Your task to perform on an android device: set default search engine in the chrome app Image 0: 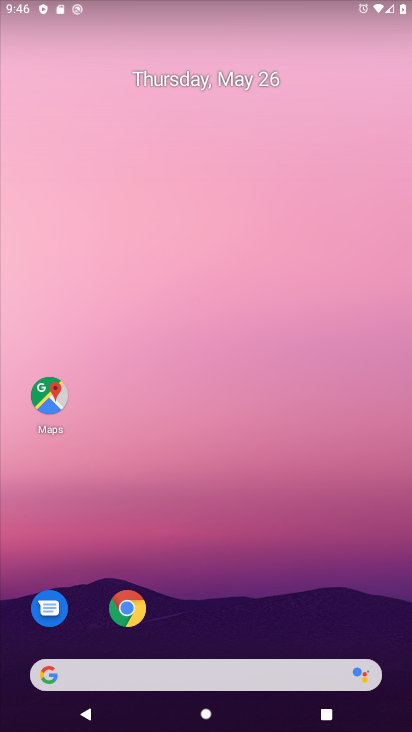
Step 0: drag from (269, 554) to (227, 64)
Your task to perform on an android device: set default search engine in the chrome app Image 1: 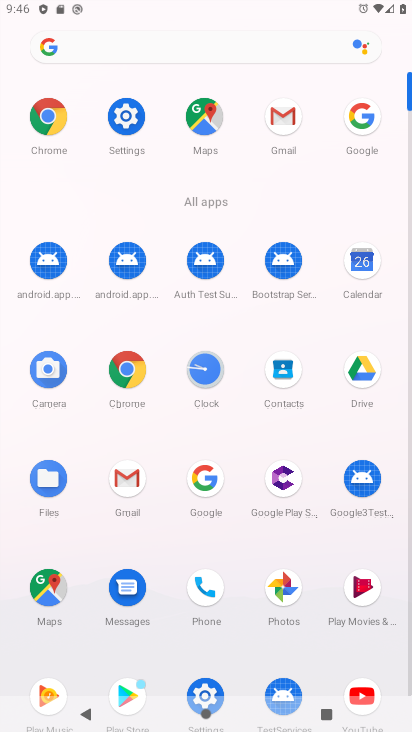
Step 1: click (134, 370)
Your task to perform on an android device: set default search engine in the chrome app Image 2: 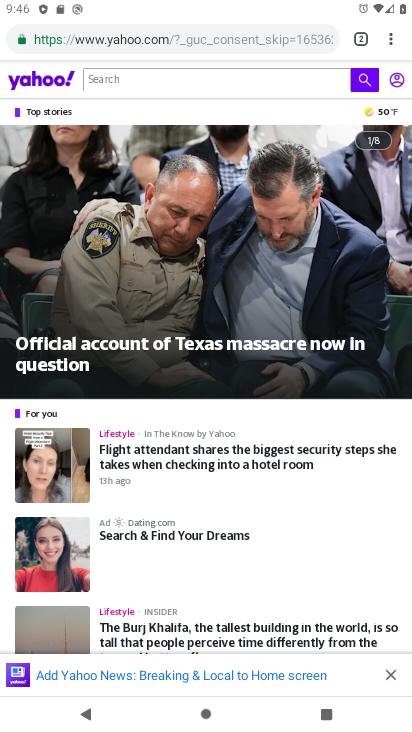
Step 2: click (390, 36)
Your task to perform on an android device: set default search engine in the chrome app Image 3: 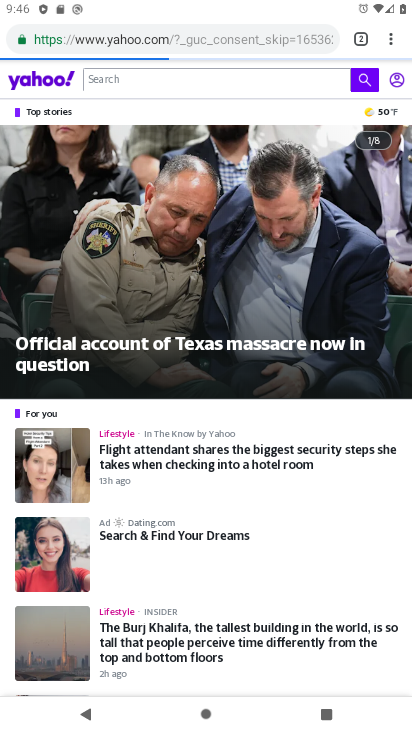
Step 3: click (394, 30)
Your task to perform on an android device: set default search engine in the chrome app Image 4: 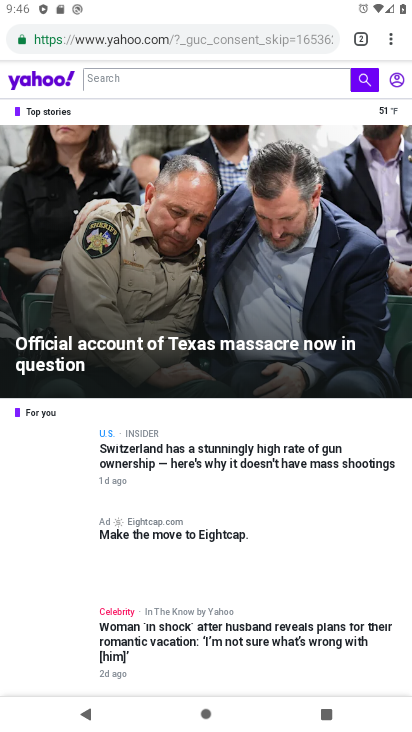
Step 4: click (394, 32)
Your task to perform on an android device: set default search engine in the chrome app Image 5: 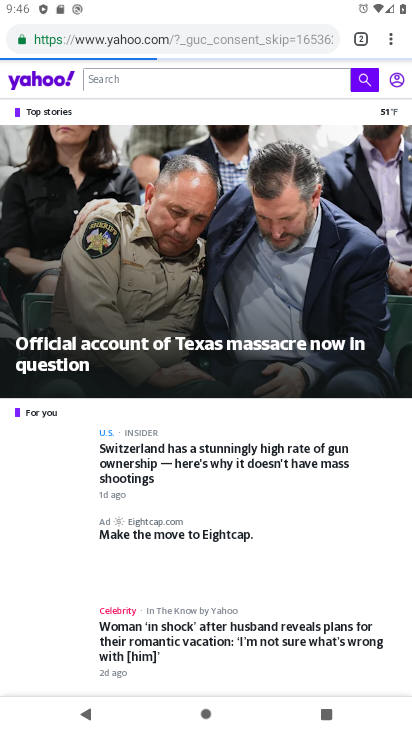
Step 5: click (394, 33)
Your task to perform on an android device: set default search engine in the chrome app Image 6: 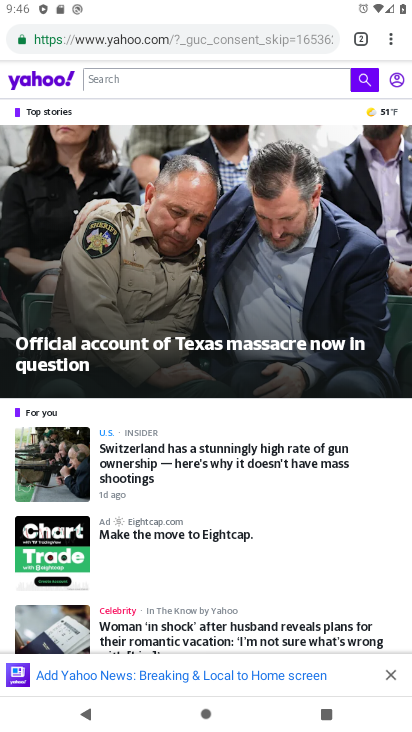
Step 6: click (384, 41)
Your task to perform on an android device: set default search engine in the chrome app Image 7: 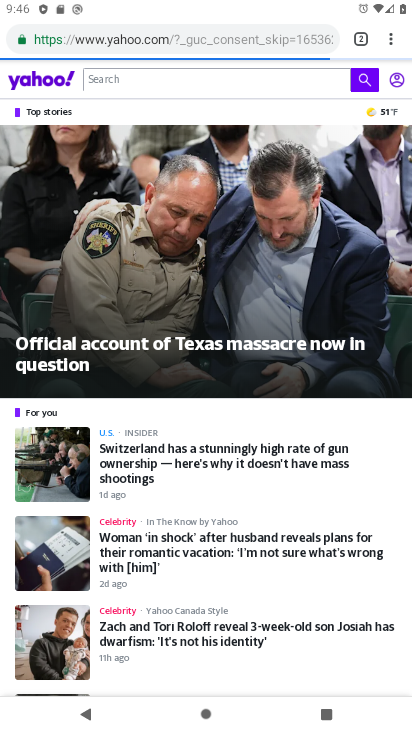
Step 7: click (390, 41)
Your task to perform on an android device: set default search engine in the chrome app Image 8: 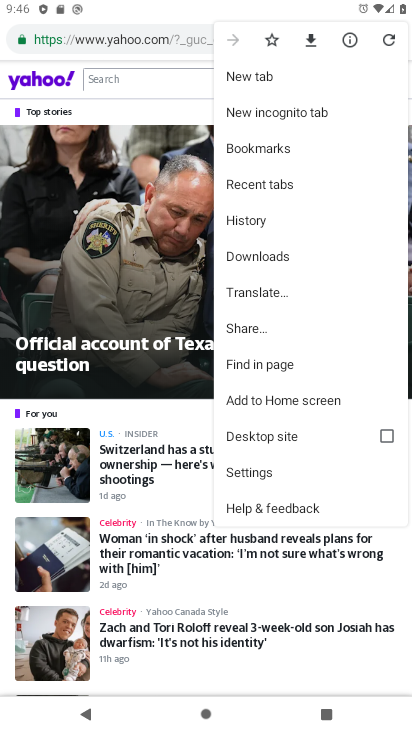
Step 8: click (244, 469)
Your task to perform on an android device: set default search engine in the chrome app Image 9: 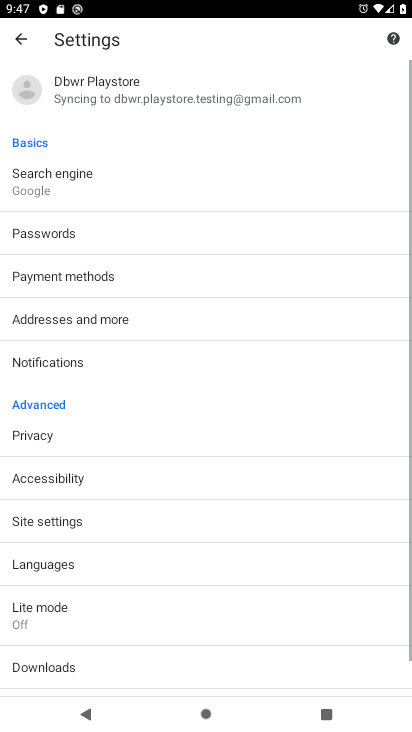
Step 9: click (96, 166)
Your task to perform on an android device: set default search engine in the chrome app Image 10: 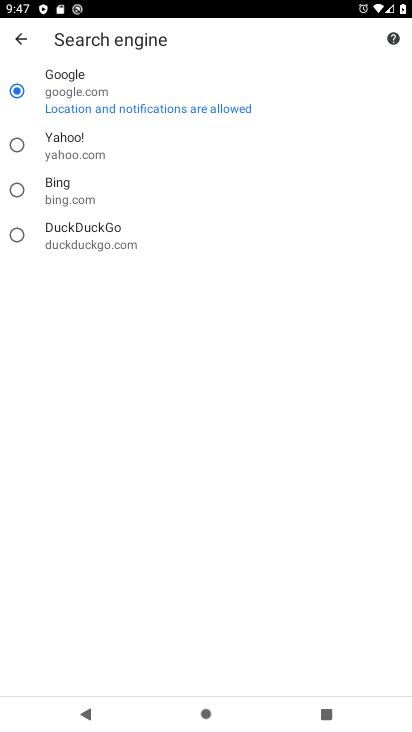
Step 10: click (132, 78)
Your task to perform on an android device: set default search engine in the chrome app Image 11: 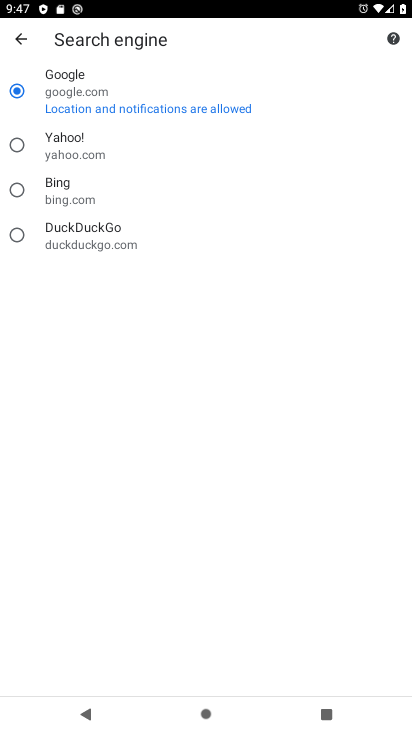
Step 11: task complete